Your task to perform on an android device: Open wifi settings Image 0: 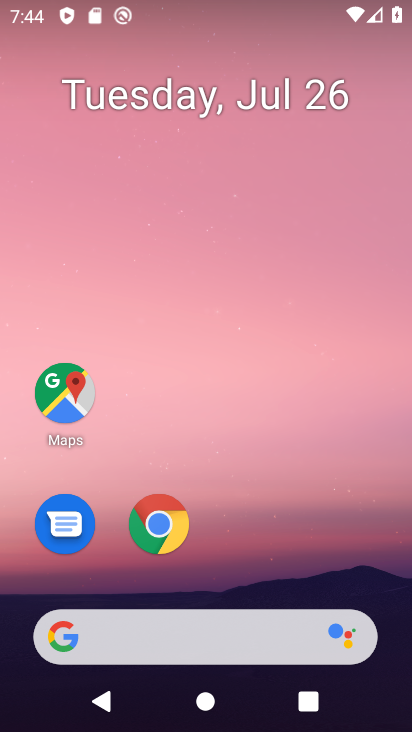
Step 0: drag from (286, 515) to (265, 26)
Your task to perform on an android device: Open wifi settings Image 1: 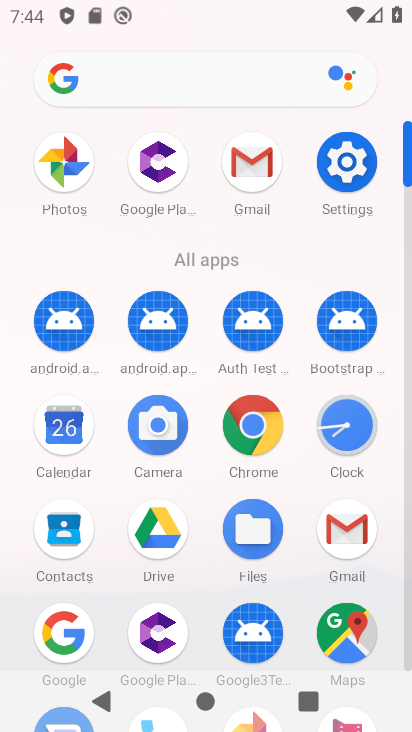
Step 1: click (340, 155)
Your task to perform on an android device: Open wifi settings Image 2: 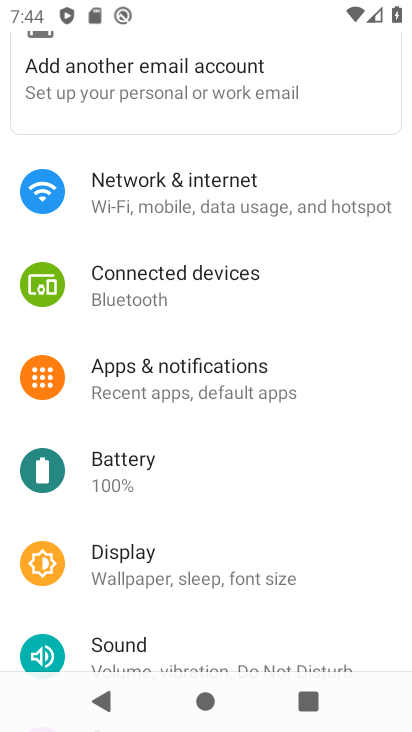
Step 2: click (235, 184)
Your task to perform on an android device: Open wifi settings Image 3: 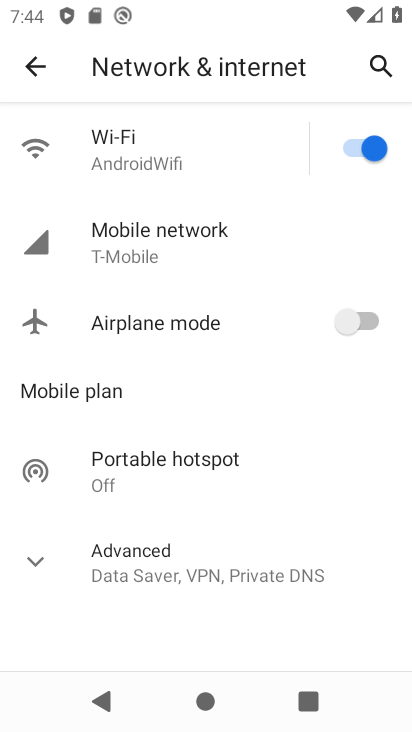
Step 3: click (155, 152)
Your task to perform on an android device: Open wifi settings Image 4: 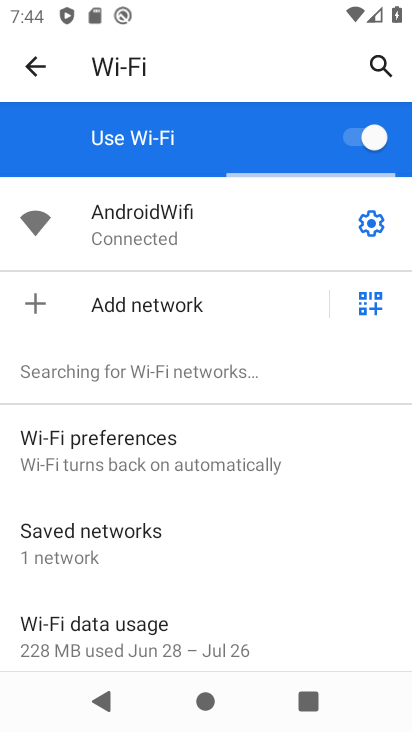
Step 4: task complete